Your task to perform on an android device: Open ESPN.com Image 0: 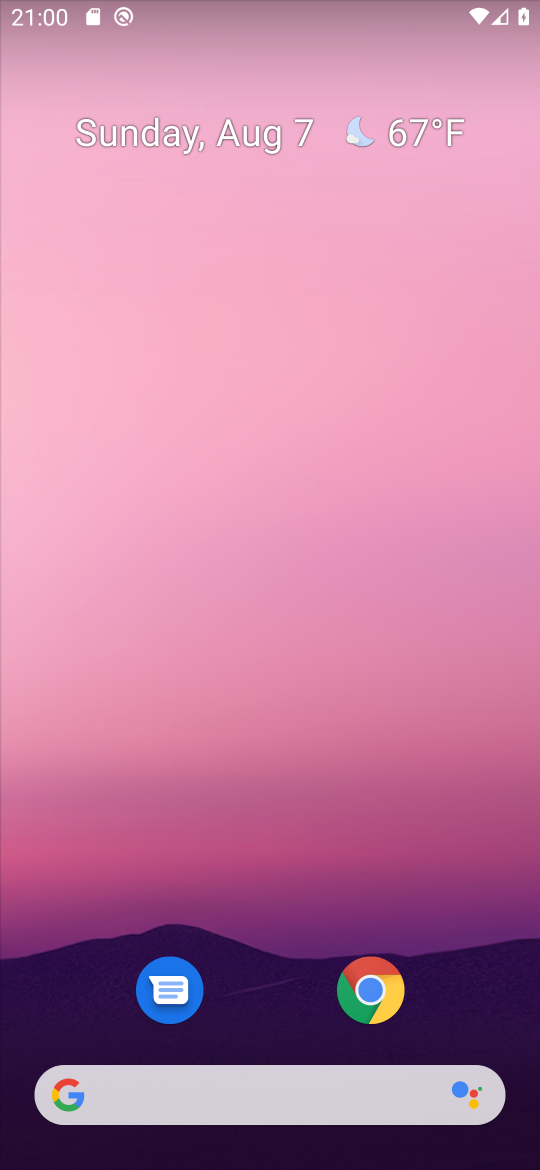
Step 0: click (266, 1106)
Your task to perform on an android device: Open ESPN.com Image 1: 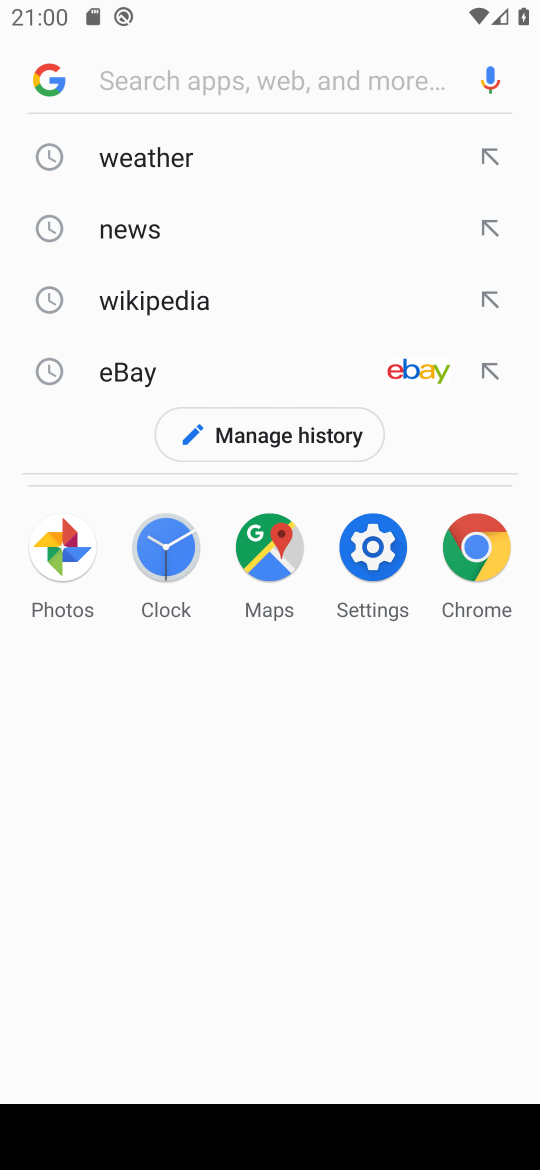
Step 1: type "espn.com"
Your task to perform on an android device: Open ESPN.com Image 2: 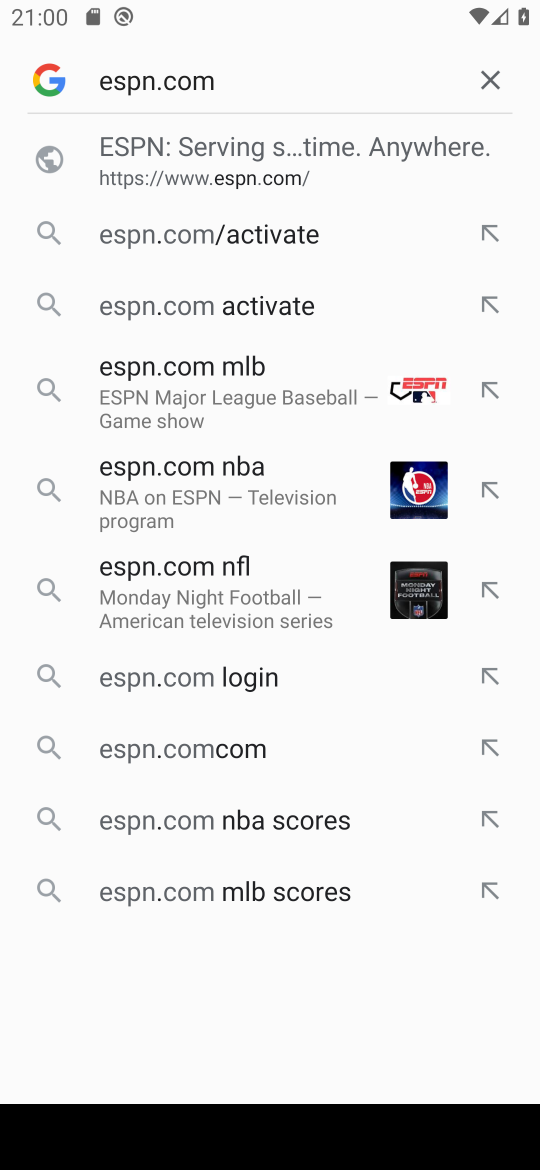
Step 2: click (280, 178)
Your task to perform on an android device: Open ESPN.com Image 3: 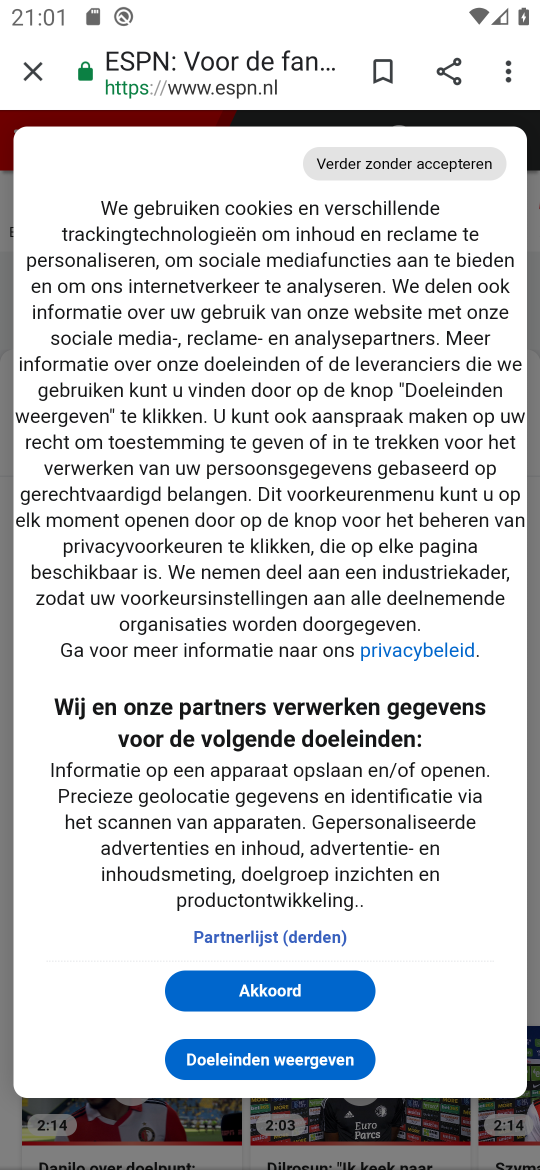
Step 3: click (507, 77)
Your task to perform on an android device: Open ESPN.com Image 4: 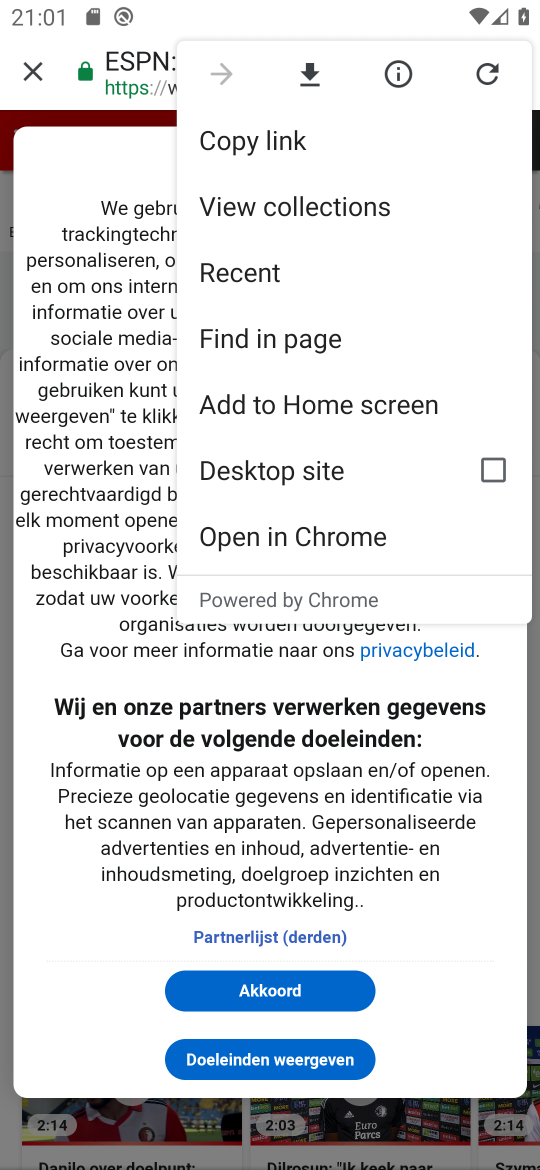
Step 4: click (402, 946)
Your task to perform on an android device: Open ESPN.com Image 5: 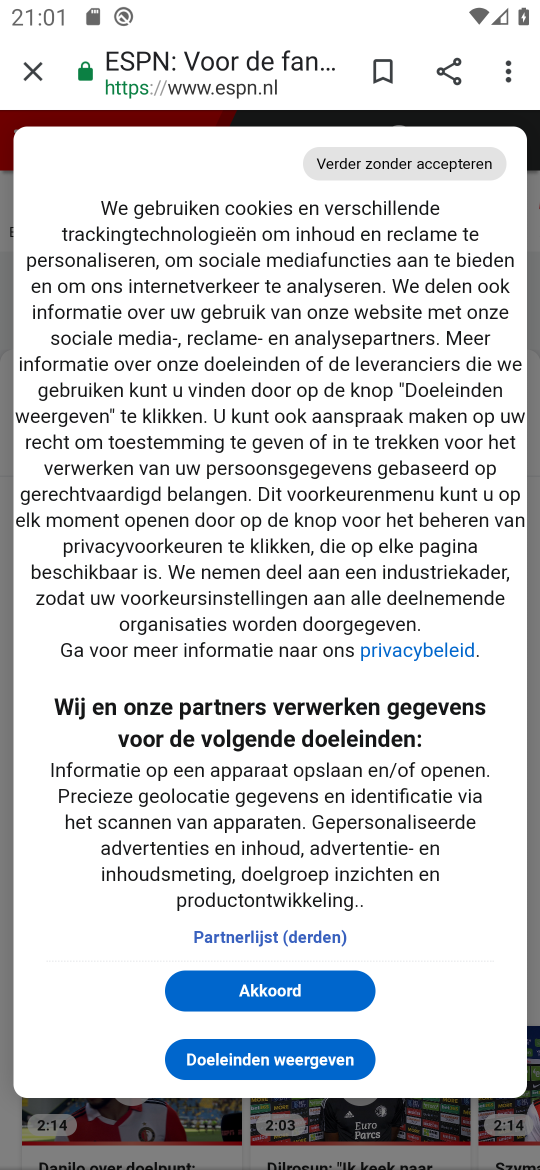
Step 5: click (338, 984)
Your task to perform on an android device: Open ESPN.com Image 6: 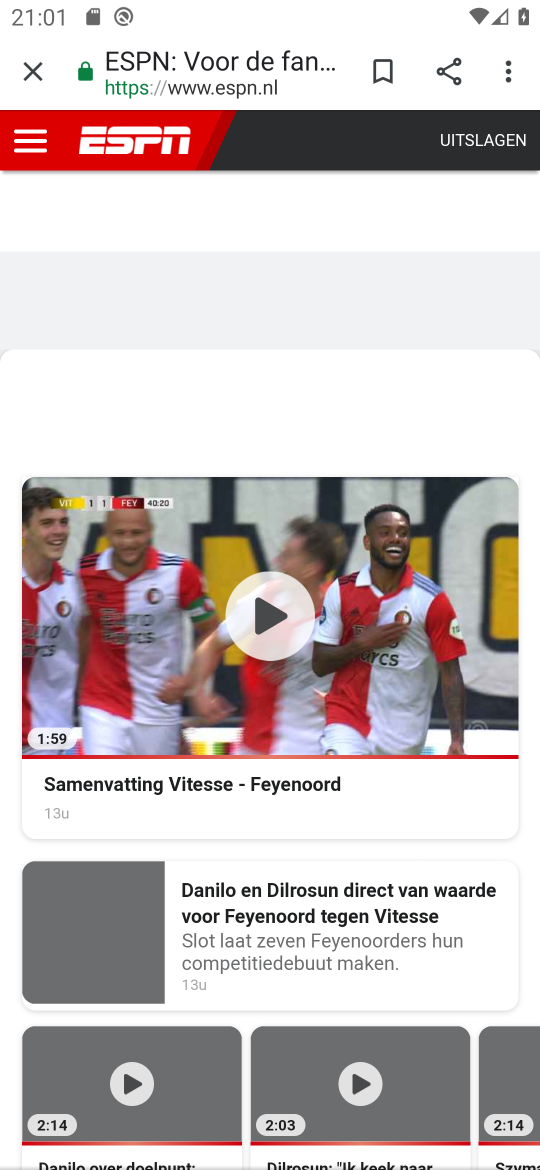
Step 6: task complete